Your task to perform on an android device: snooze an email in the gmail app Image 0: 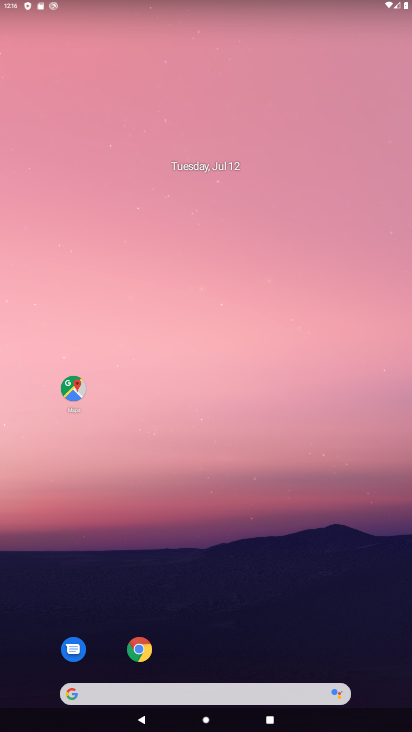
Step 0: drag from (208, 656) to (144, 34)
Your task to perform on an android device: snooze an email in the gmail app Image 1: 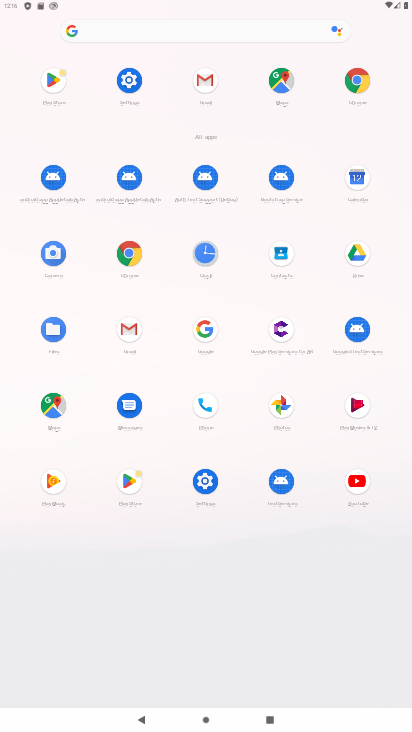
Step 1: click (219, 75)
Your task to perform on an android device: snooze an email in the gmail app Image 2: 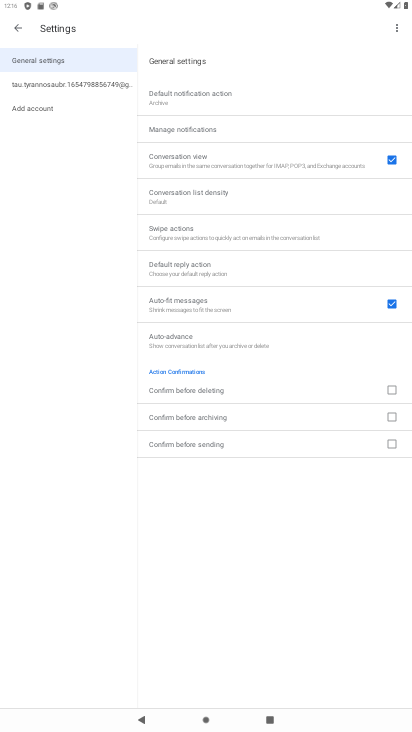
Step 2: click (20, 34)
Your task to perform on an android device: snooze an email in the gmail app Image 3: 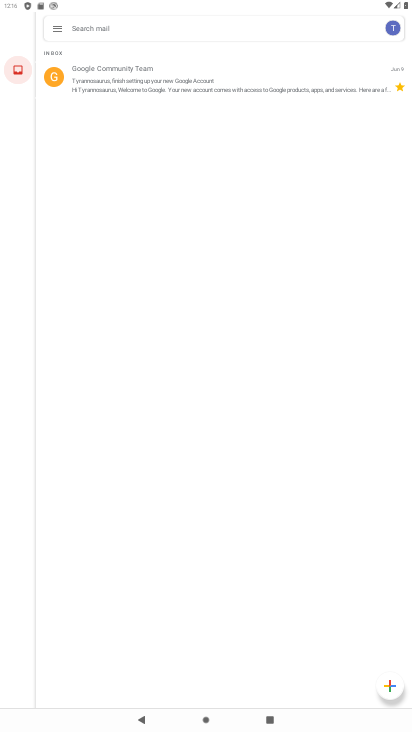
Step 3: click (59, 28)
Your task to perform on an android device: snooze an email in the gmail app Image 4: 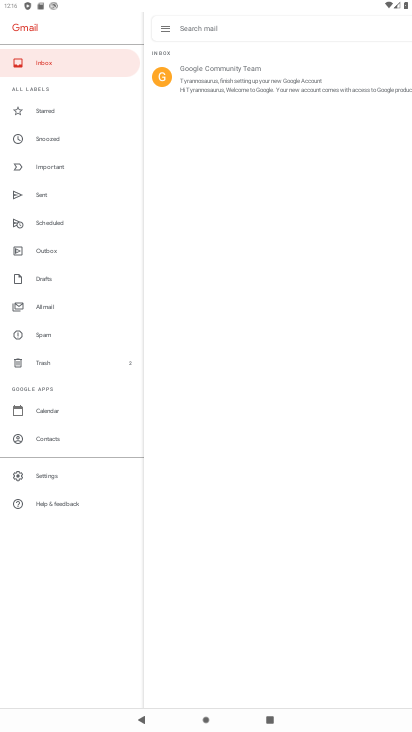
Step 4: click (52, 136)
Your task to perform on an android device: snooze an email in the gmail app Image 5: 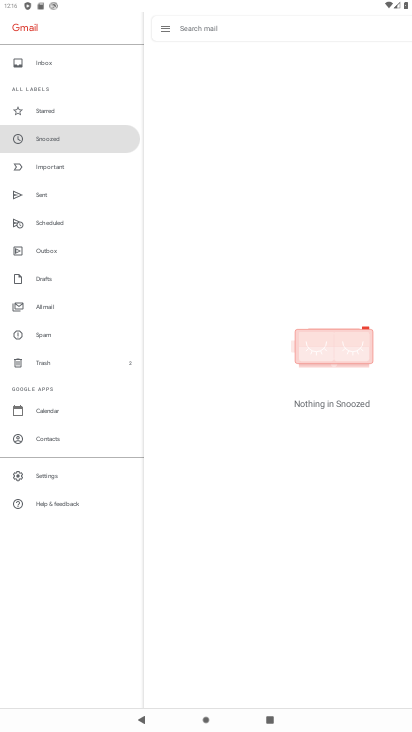
Step 5: task complete